Your task to perform on an android device: toggle show notifications on the lock screen Image 0: 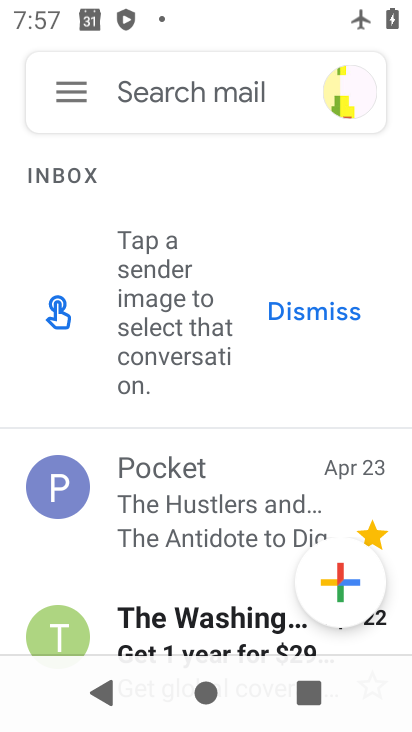
Step 0: press home button
Your task to perform on an android device: toggle show notifications on the lock screen Image 1: 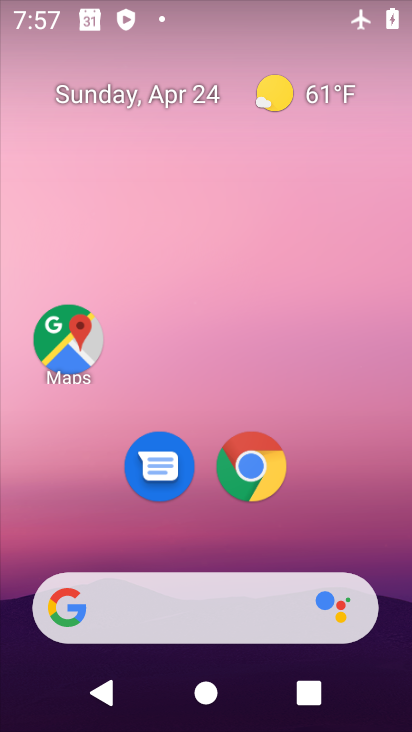
Step 1: drag from (218, 543) to (217, 15)
Your task to perform on an android device: toggle show notifications on the lock screen Image 2: 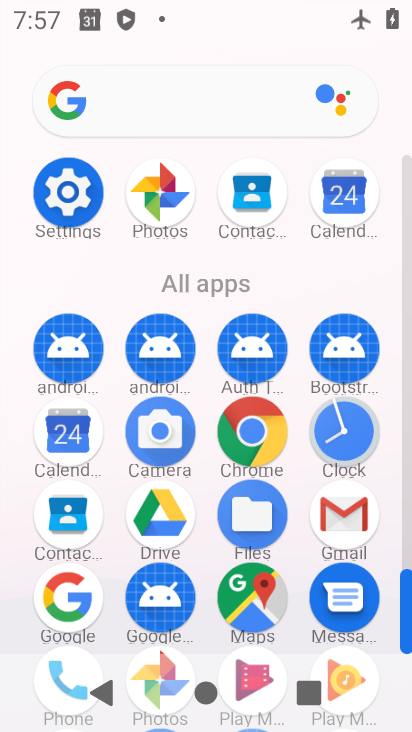
Step 2: click (69, 189)
Your task to perform on an android device: toggle show notifications on the lock screen Image 3: 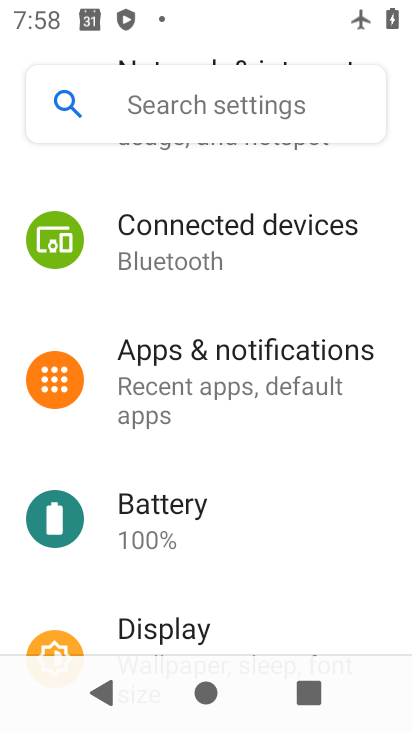
Step 3: click (234, 392)
Your task to perform on an android device: toggle show notifications on the lock screen Image 4: 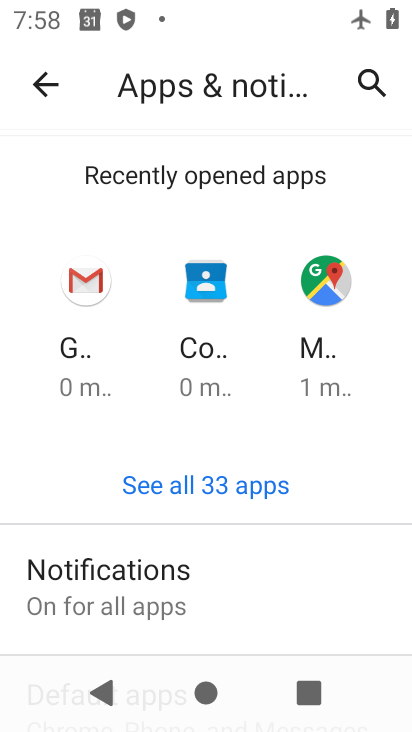
Step 4: drag from (139, 599) to (144, 430)
Your task to perform on an android device: toggle show notifications on the lock screen Image 5: 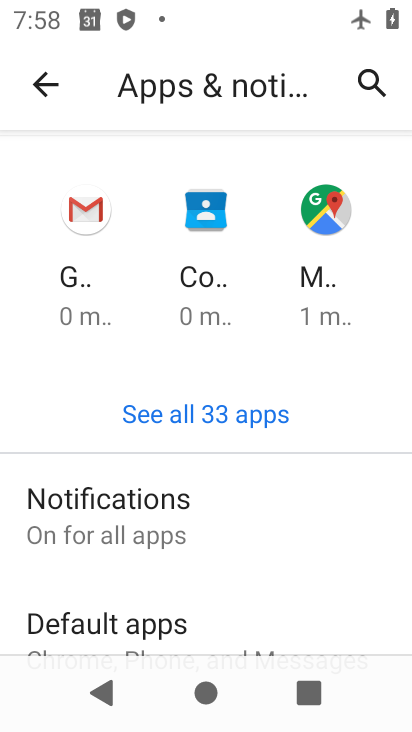
Step 5: click (104, 501)
Your task to perform on an android device: toggle show notifications on the lock screen Image 6: 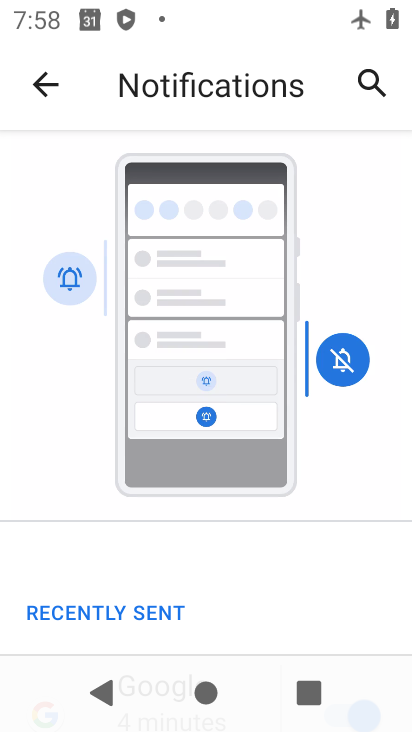
Step 6: drag from (154, 484) to (230, 179)
Your task to perform on an android device: toggle show notifications on the lock screen Image 7: 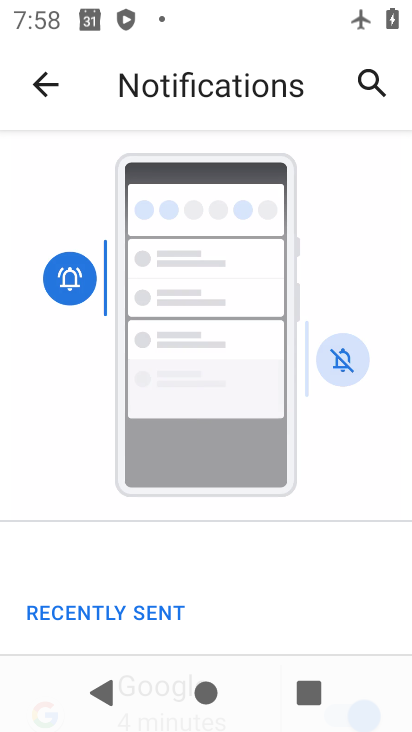
Step 7: drag from (157, 566) to (139, 89)
Your task to perform on an android device: toggle show notifications on the lock screen Image 8: 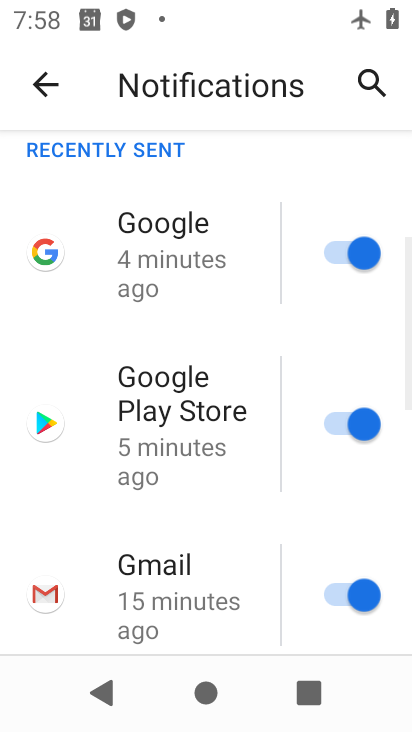
Step 8: drag from (129, 600) to (257, 61)
Your task to perform on an android device: toggle show notifications on the lock screen Image 9: 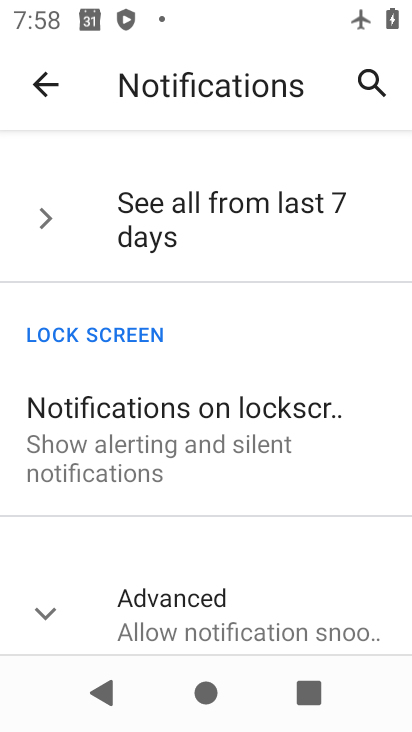
Step 9: drag from (189, 245) to (218, 59)
Your task to perform on an android device: toggle show notifications on the lock screen Image 10: 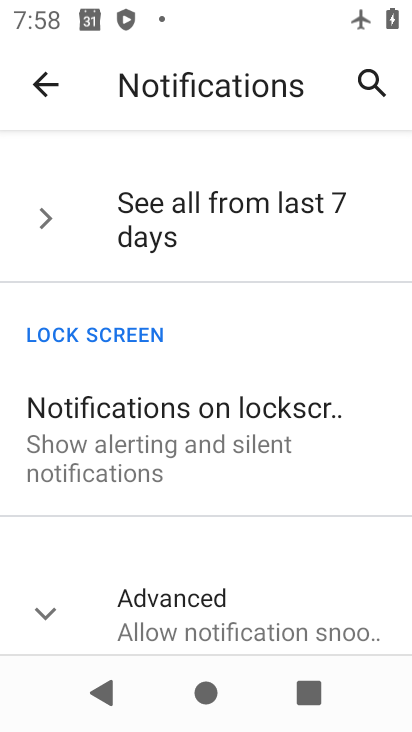
Step 10: click (210, 179)
Your task to perform on an android device: toggle show notifications on the lock screen Image 11: 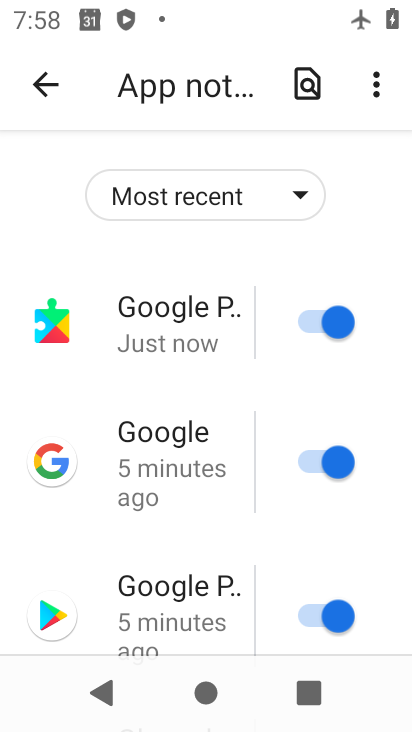
Step 11: click (33, 75)
Your task to perform on an android device: toggle show notifications on the lock screen Image 12: 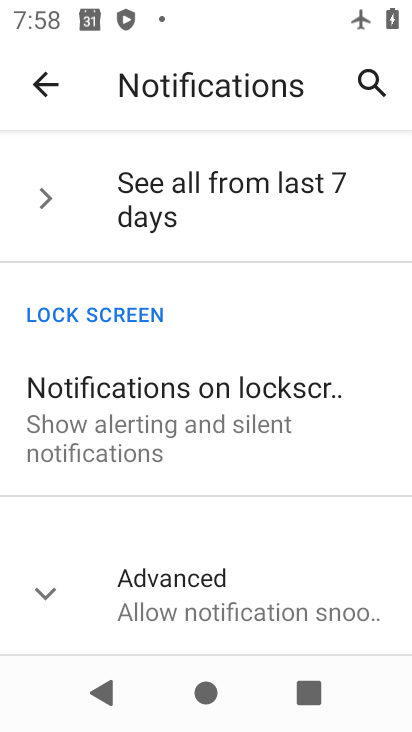
Step 12: click (133, 449)
Your task to perform on an android device: toggle show notifications on the lock screen Image 13: 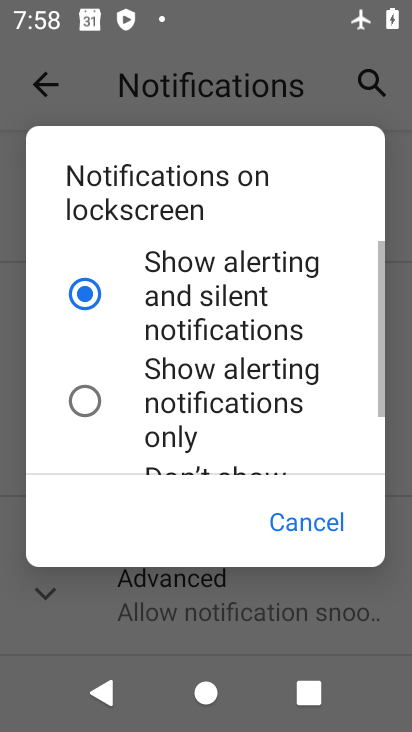
Step 13: drag from (145, 425) to (164, 255)
Your task to perform on an android device: toggle show notifications on the lock screen Image 14: 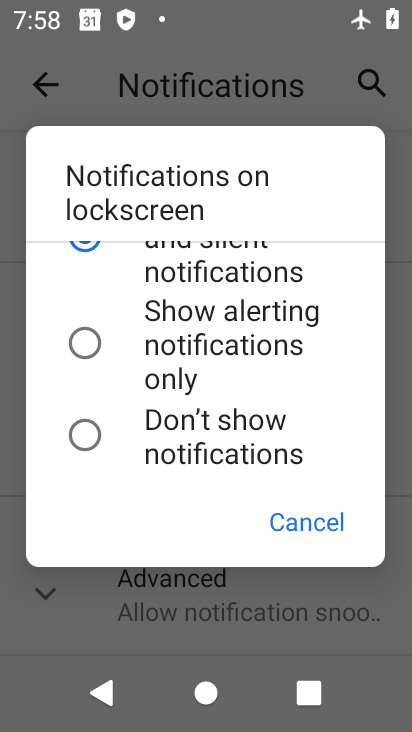
Step 14: click (93, 439)
Your task to perform on an android device: toggle show notifications on the lock screen Image 15: 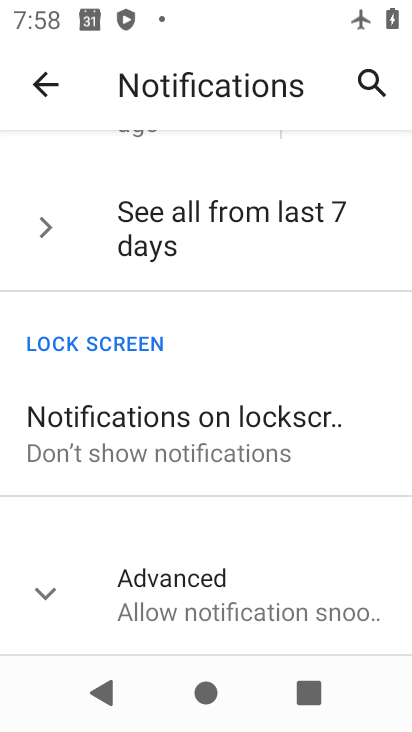
Step 15: task complete